Your task to perform on an android device: toggle javascript in the chrome app Image 0: 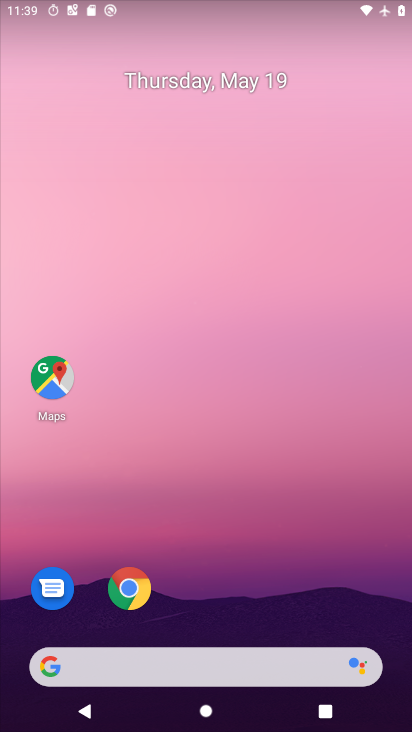
Step 0: press home button
Your task to perform on an android device: toggle javascript in the chrome app Image 1: 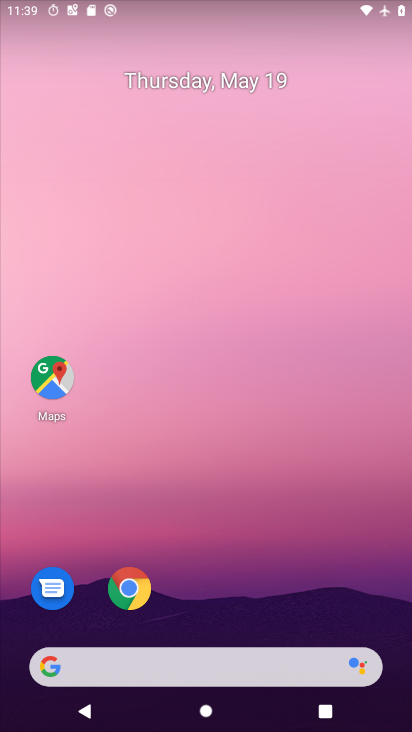
Step 1: click (132, 597)
Your task to perform on an android device: toggle javascript in the chrome app Image 2: 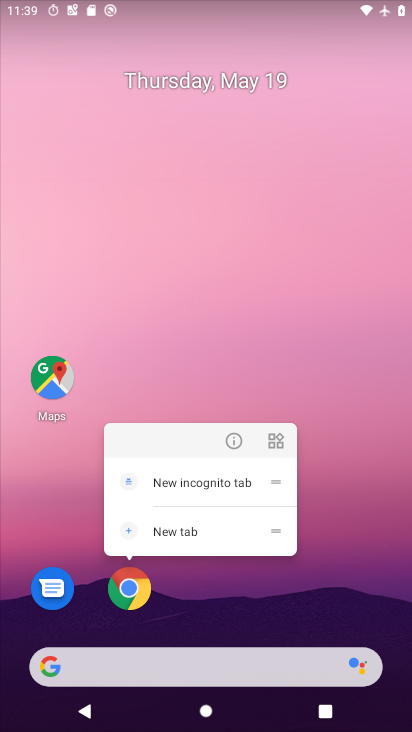
Step 2: click (130, 595)
Your task to perform on an android device: toggle javascript in the chrome app Image 3: 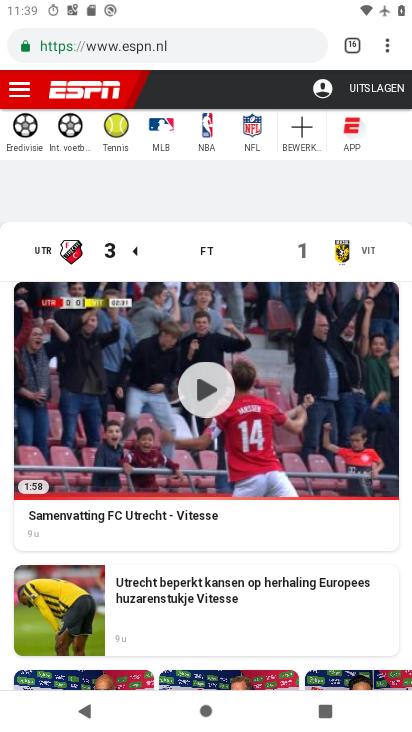
Step 3: drag from (387, 44) to (254, 552)
Your task to perform on an android device: toggle javascript in the chrome app Image 4: 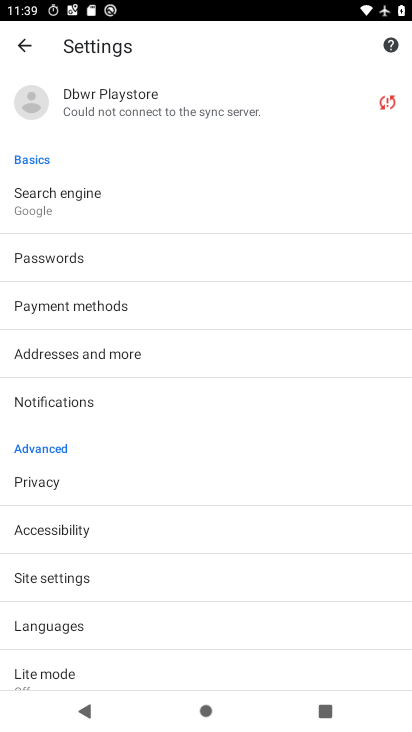
Step 4: click (79, 576)
Your task to perform on an android device: toggle javascript in the chrome app Image 5: 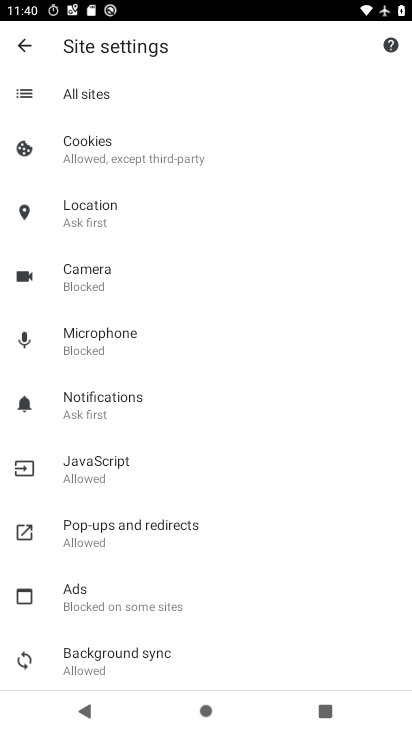
Step 5: click (109, 471)
Your task to perform on an android device: toggle javascript in the chrome app Image 6: 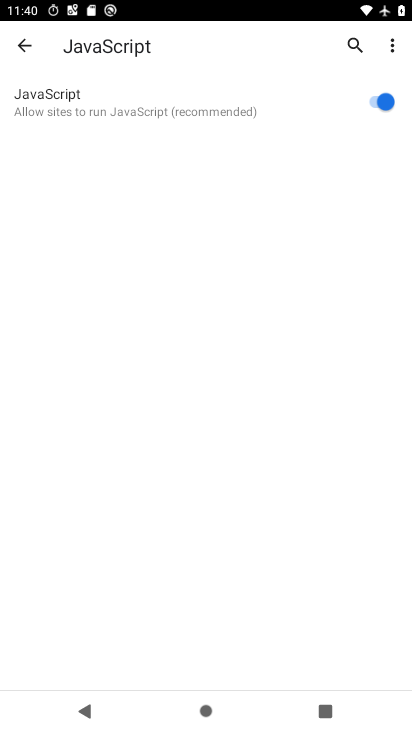
Step 6: click (376, 96)
Your task to perform on an android device: toggle javascript in the chrome app Image 7: 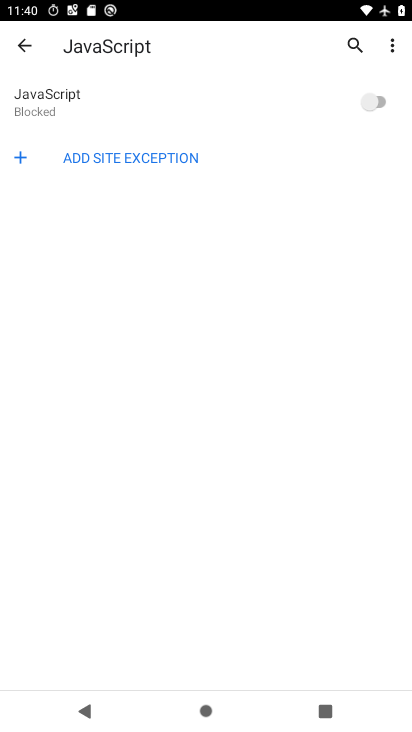
Step 7: task complete